Your task to perform on an android device: open app "Pinterest" (install if not already installed) Image 0: 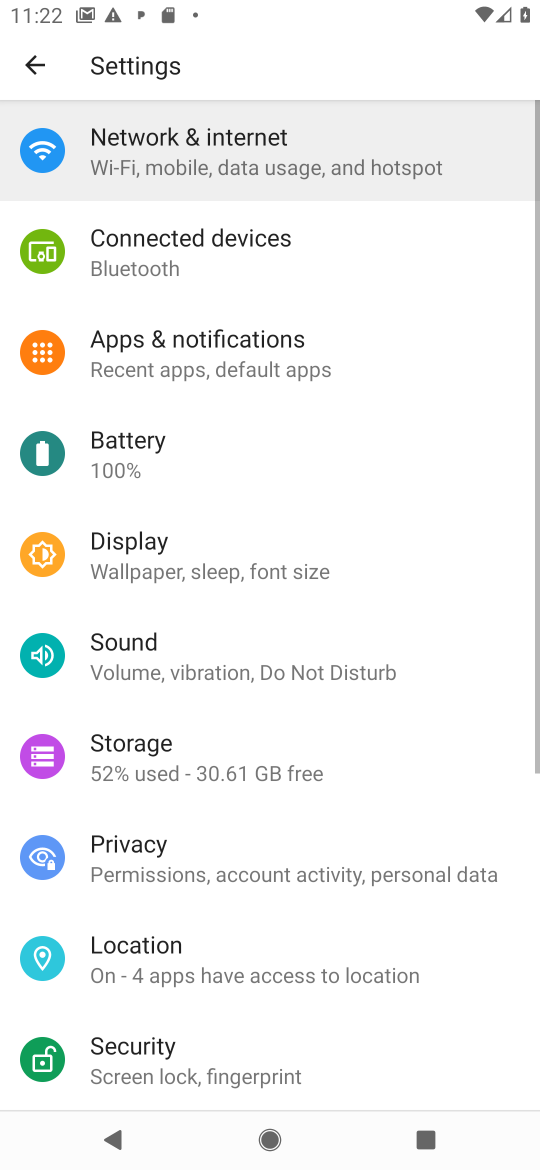
Step 0: press back button
Your task to perform on an android device: open app "Pinterest" (install if not already installed) Image 1: 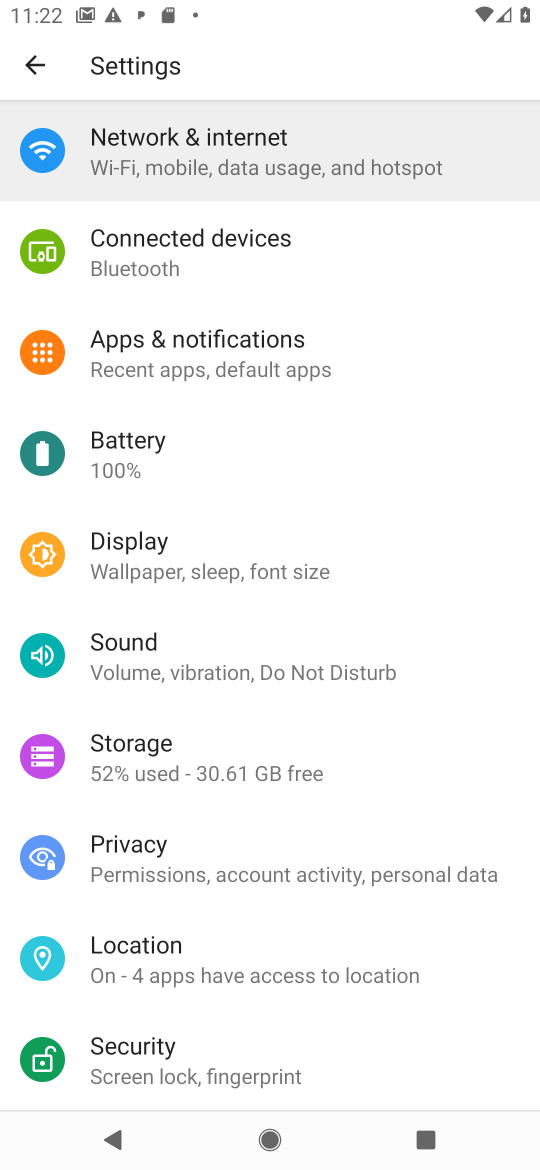
Step 1: press back button
Your task to perform on an android device: open app "Pinterest" (install if not already installed) Image 2: 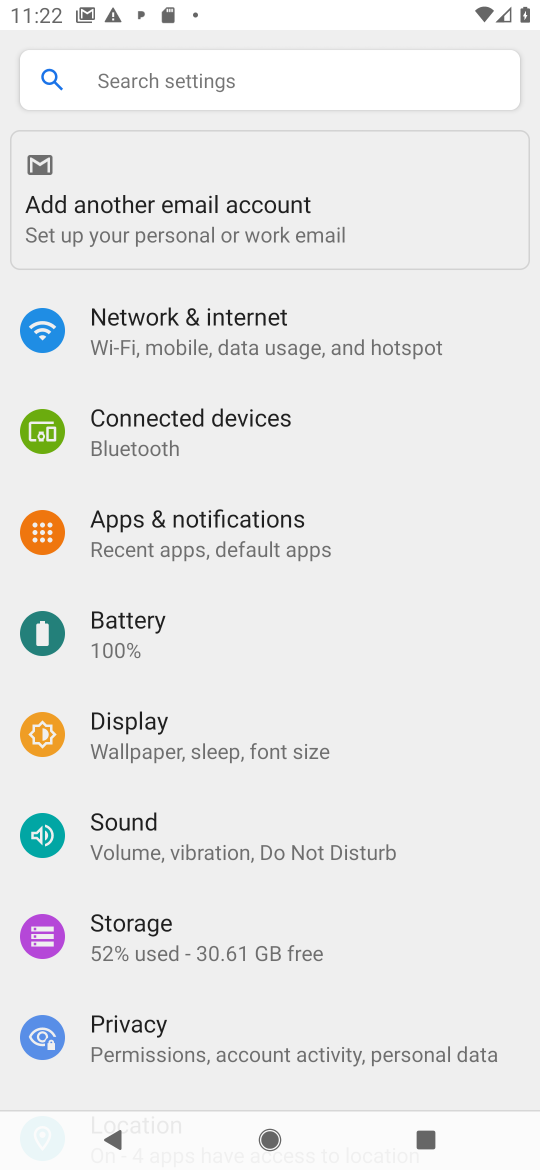
Step 2: press back button
Your task to perform on an android device: open app "Pinterest" (install if not already installed) Image 3: 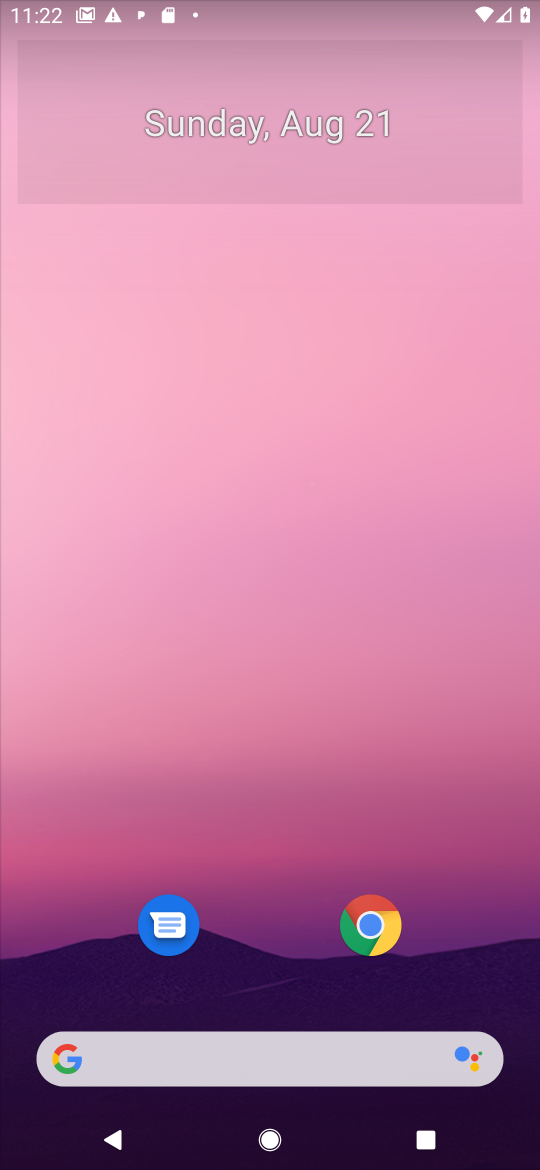
Step 3: drag from (300, 953) to (407, 150)
Your task to perform on an android device: open app "Pinterest" (install if not already installed) Image 4: 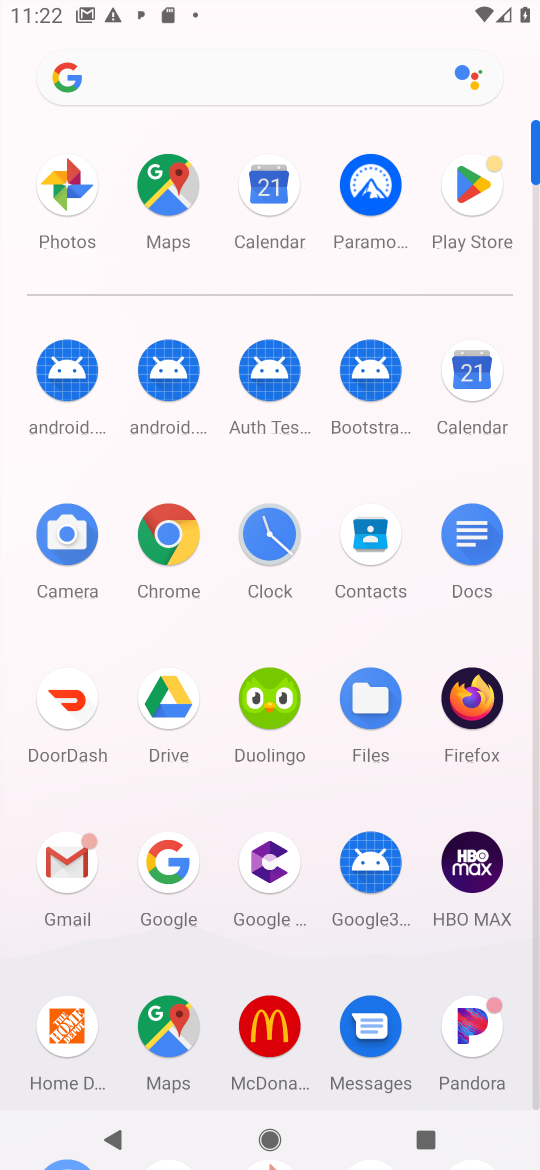
Step 4: click (485, 175)
Your task to perform on an android device: open app "Pinterest" (install if not already installed) Image 5: 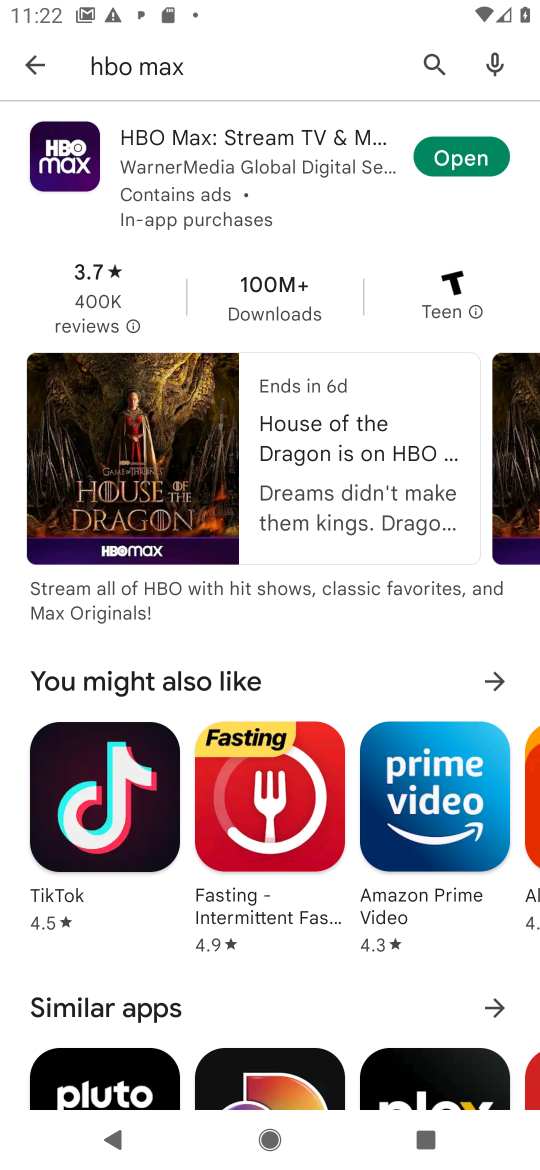
Step 5: click (438, 74)
Your task to perform on an android device: open app "Pinterest" (install if not already installed) Image 6: 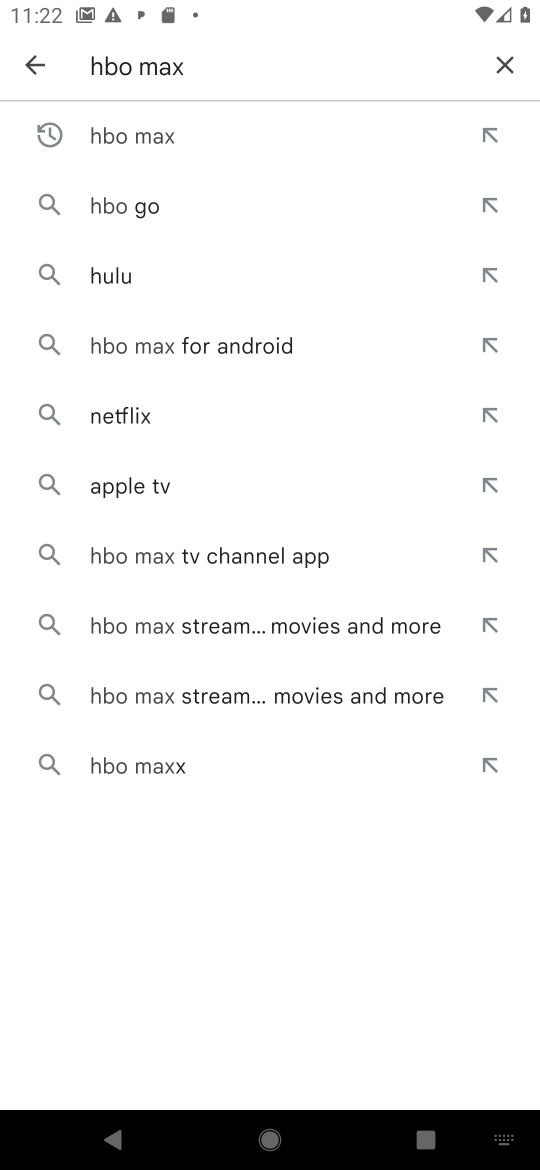
Step 6: click (502, 65)
Your task to perform on an android device: open app "Pinterest" (install if not already installed) Image 7: 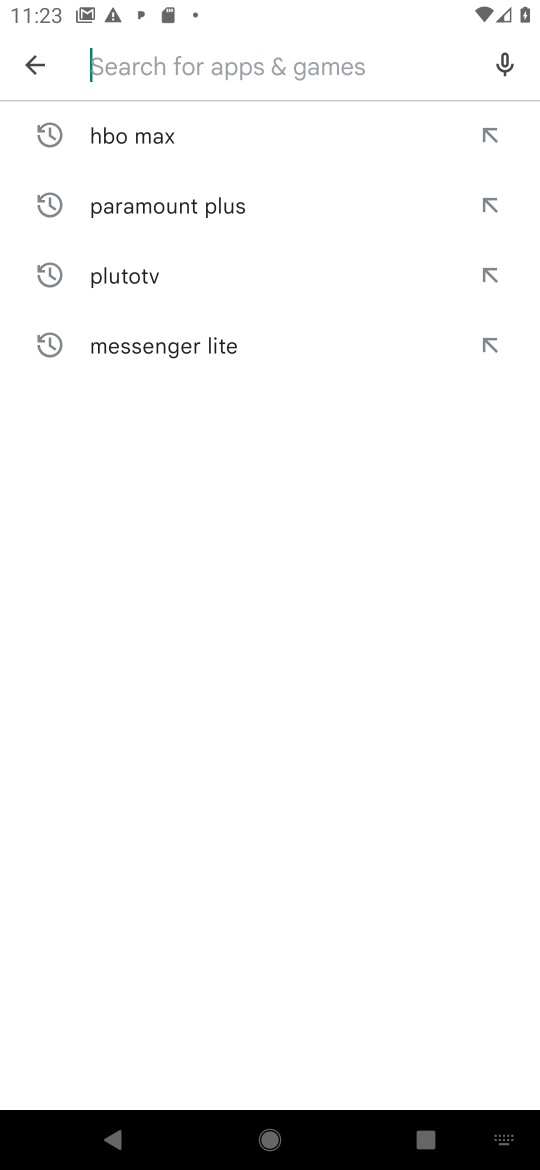
Step 7: type "pinterest"
Your task to perform on an android device: open app "Pinterest" (install if not already installed) Image 8: 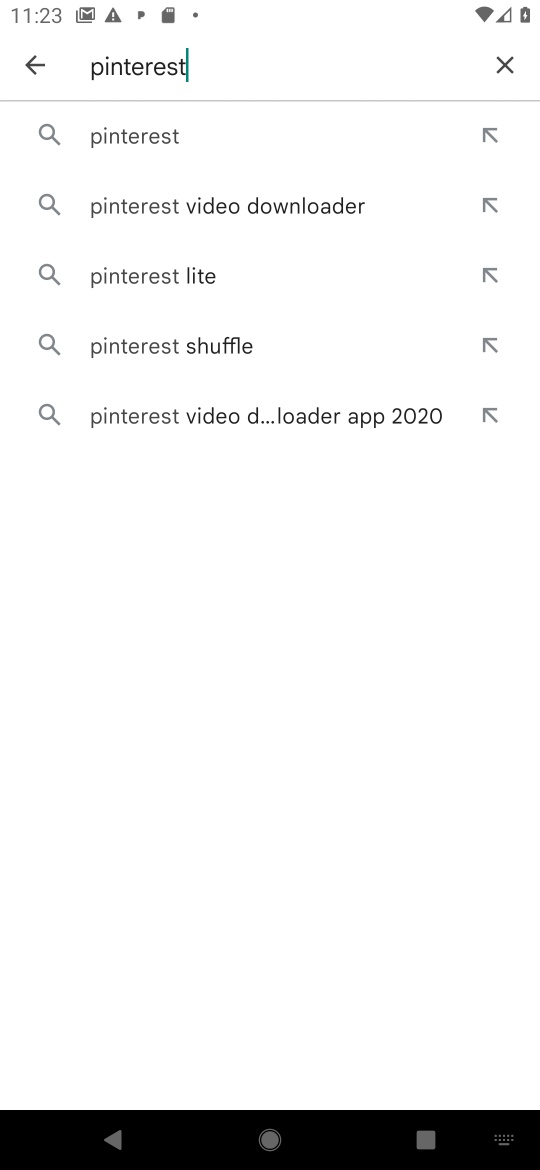
Step 8: click (129, 128)
Your task to perform on an android device: open app "Pinterest" (install if not already installed) Image 9: 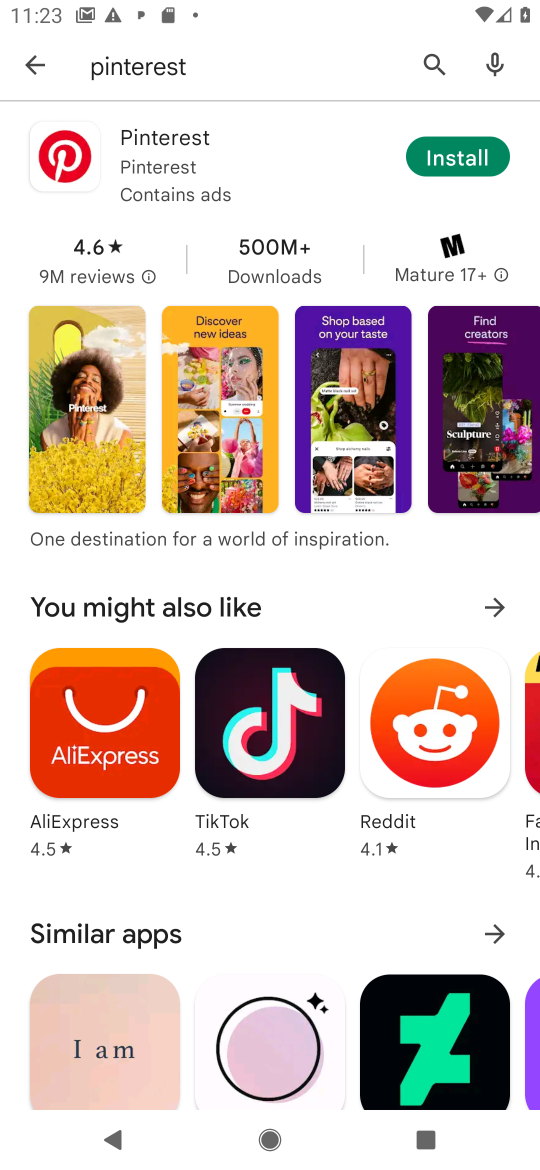
Step 9: click (484, 138)
Your task to perform on an android device: open app "Pinterest" (install if not already installed) Image 10: 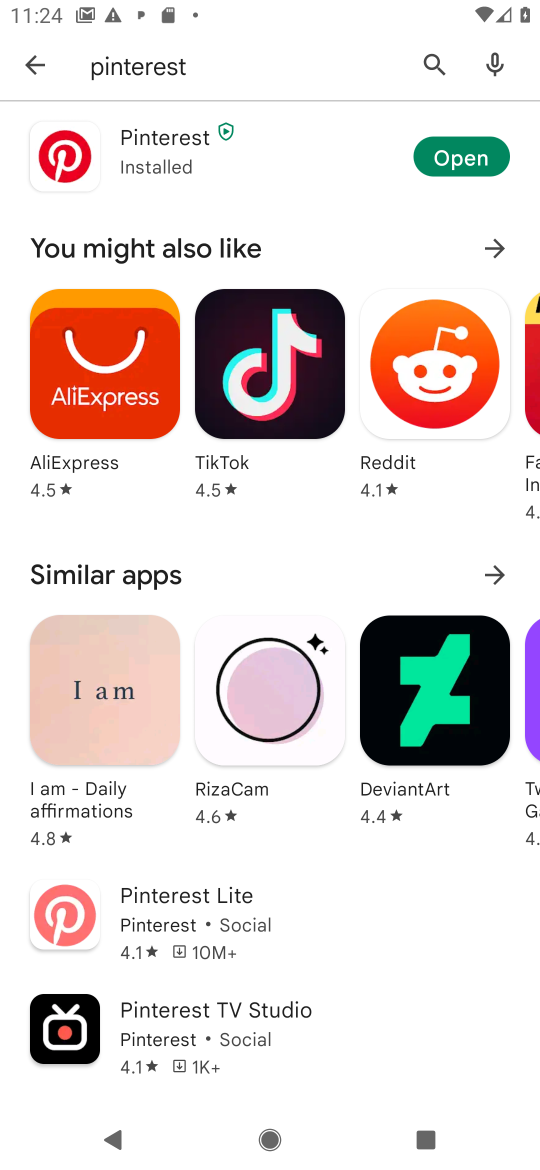
Step 10: click (447, 162)
Your task to perform on an android device: open app "Pinterest" (install if not already installed) Image 11: 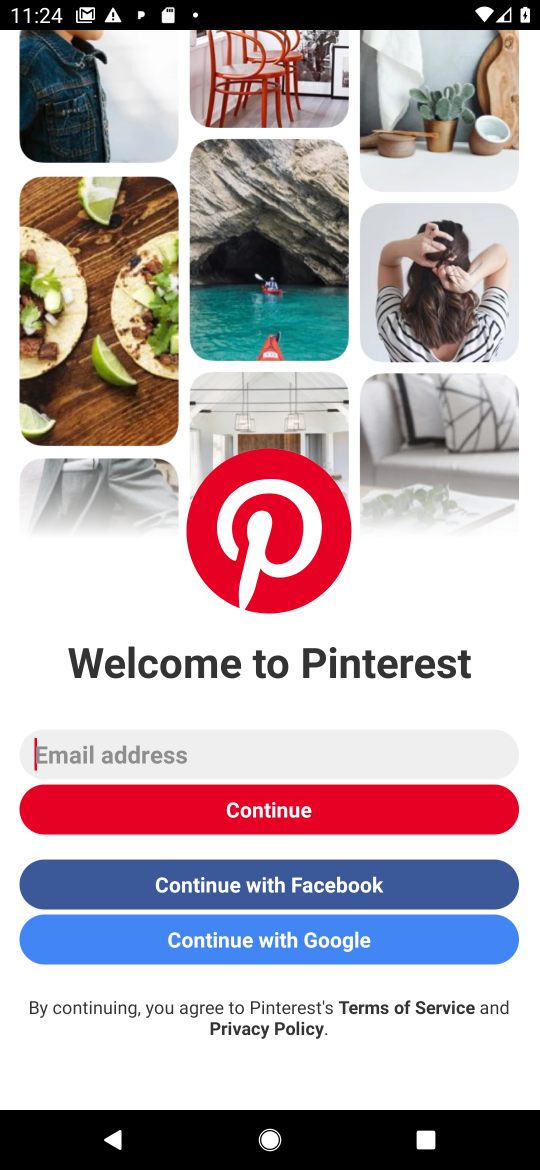
Step 11: task complete